Your task to perform on an android device: Go to sound settings Image 0: 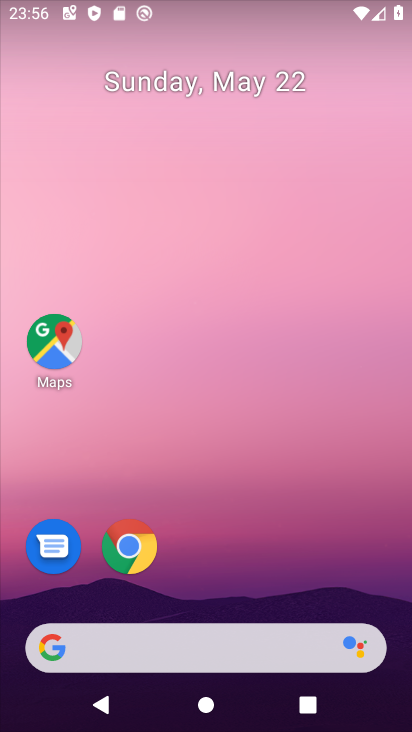
Step 0: drag from (184, 589) to (230, 138)
Your task to perform on an android device: Go to sound settings Image 1: 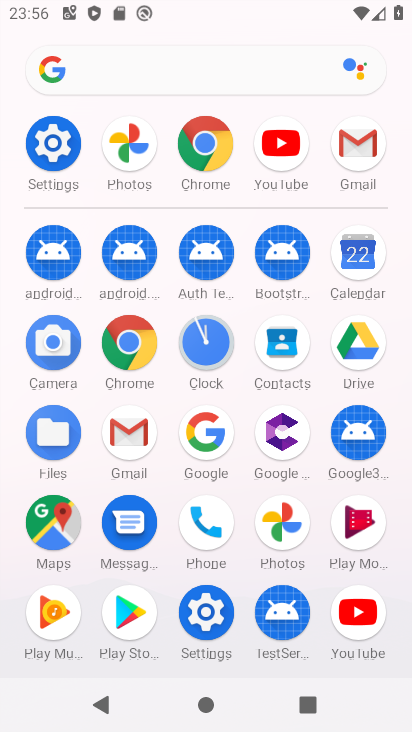
Step 1: click (17, 159)
Your task to perform on an android device: Go to sound settings Image 2: 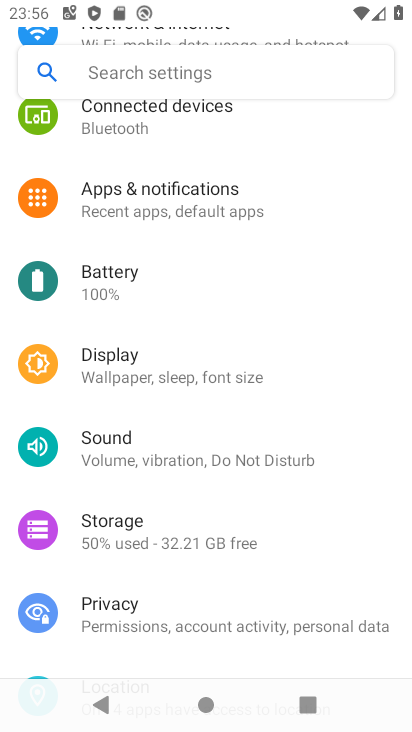
Step 2: drag from (162, 520) to (238, 251)
Your task to perform on an android device: Go to sound settings Image 3: 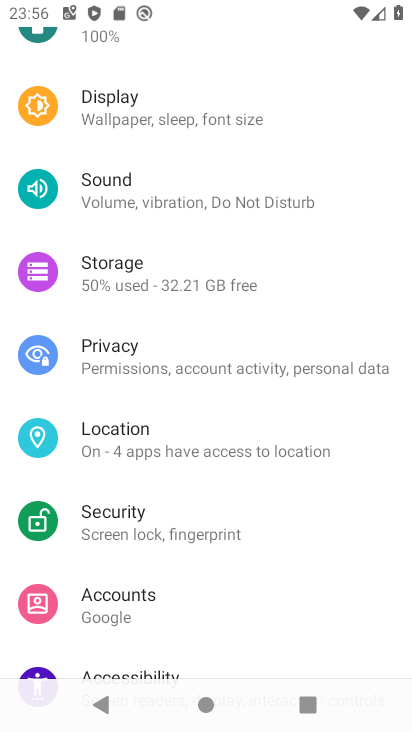
Step 3: click (140, 183)
Your task to perform on an android device: Go to sound settings Image 4: 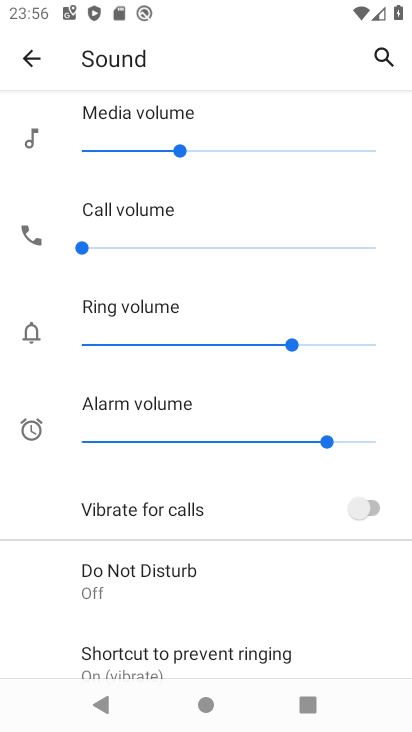
Step 4: task complete